Your task to perform on an android device: Open Amazon Image 0: 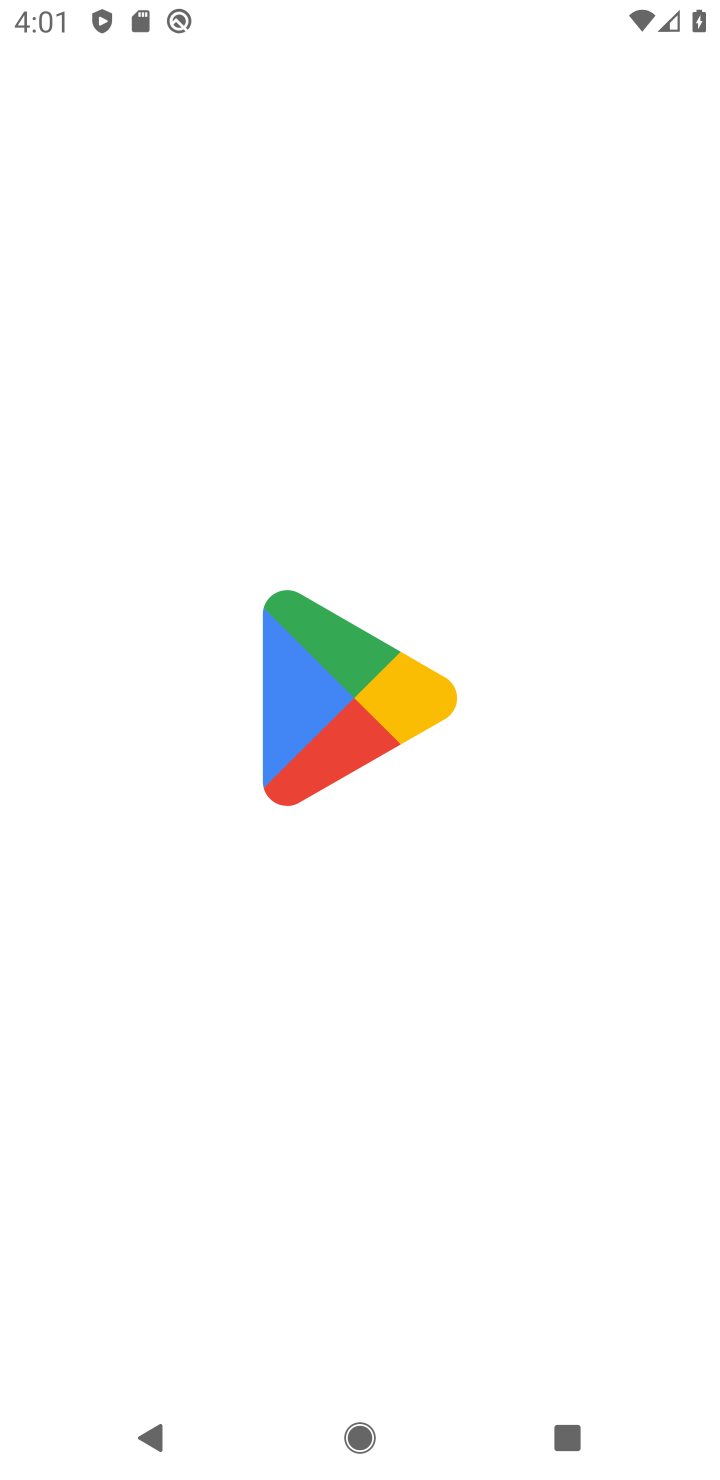
Step 0: press home button
Your task to perform on an android device: Open Amazon Image 1: 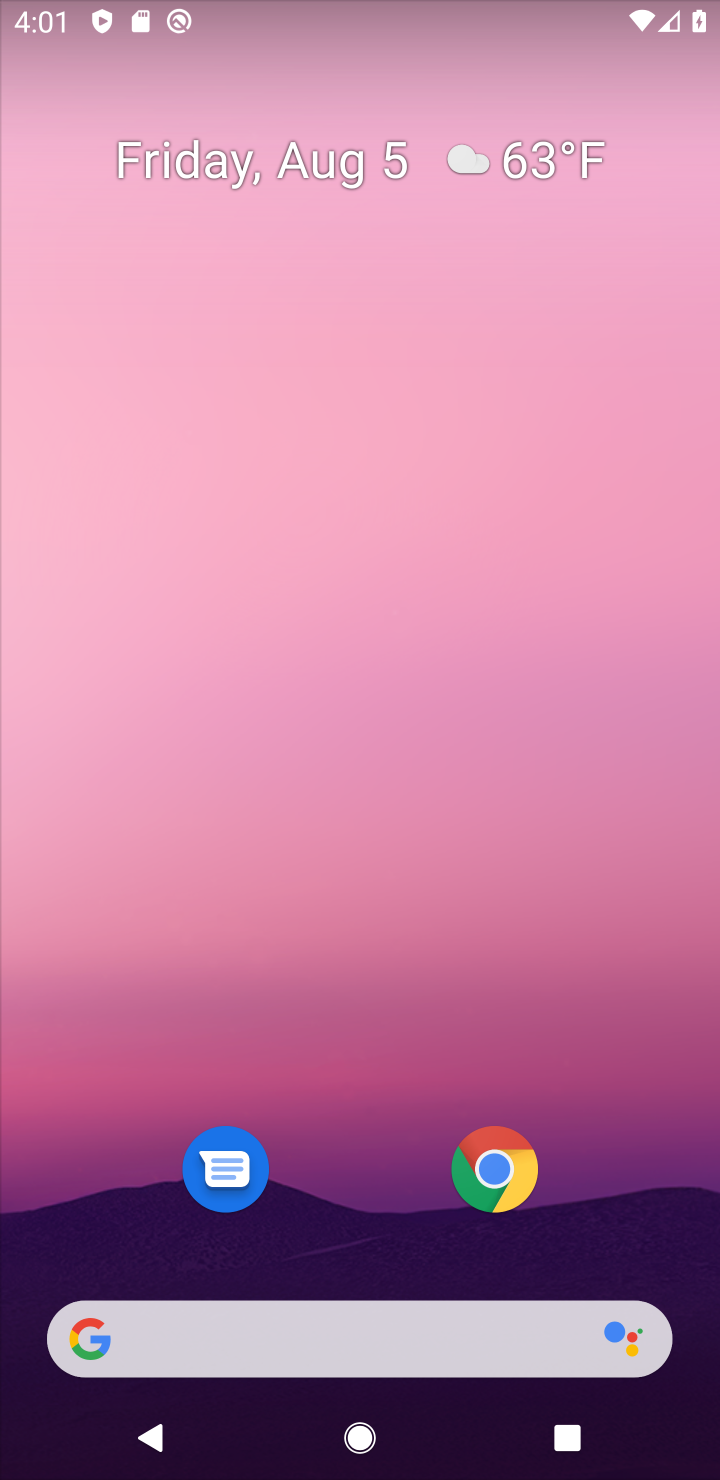
Step 1: drag from (445, 446) to (455, 200)
Your task to perform on an android device: Open Amazon Image 2: 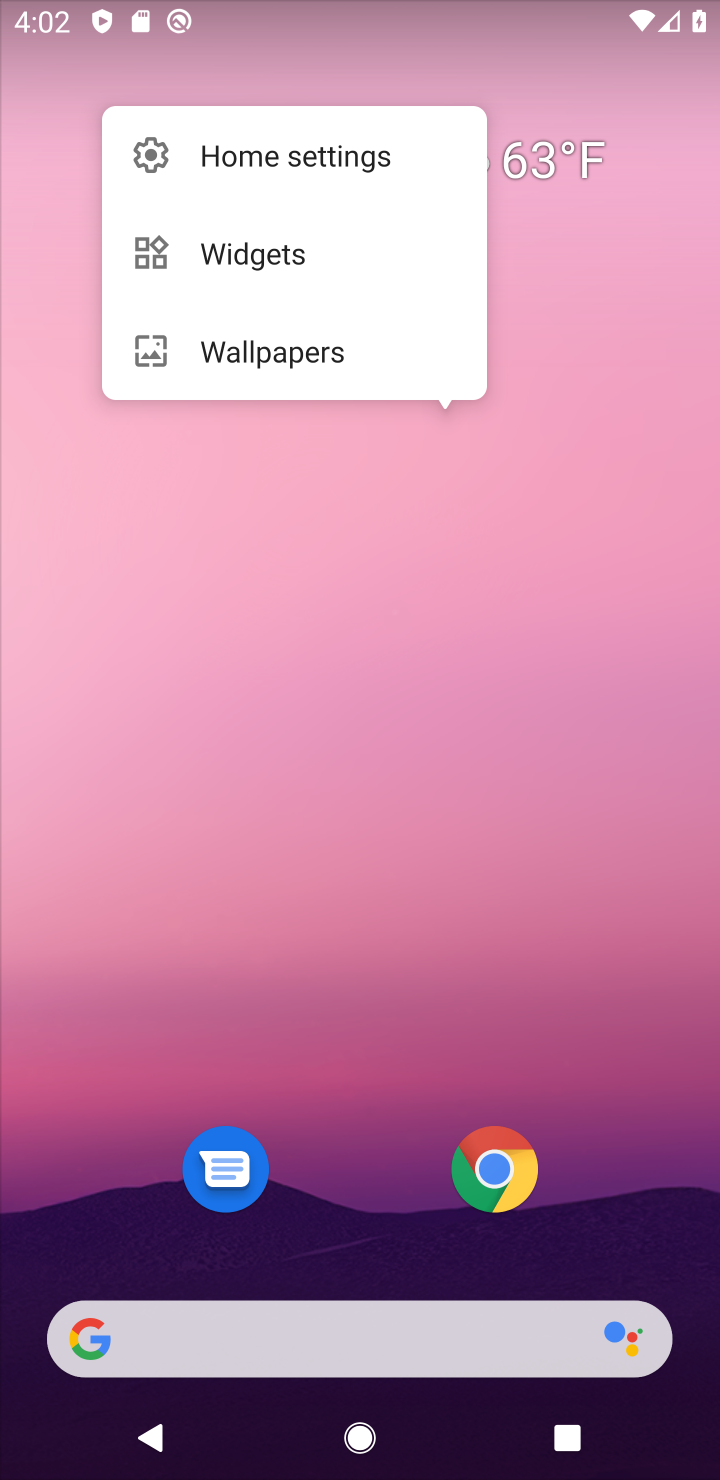
Step 2: drag from (432, 877) to (513, 275)
Your task to perform on an android device: Open Amazon Image 3: 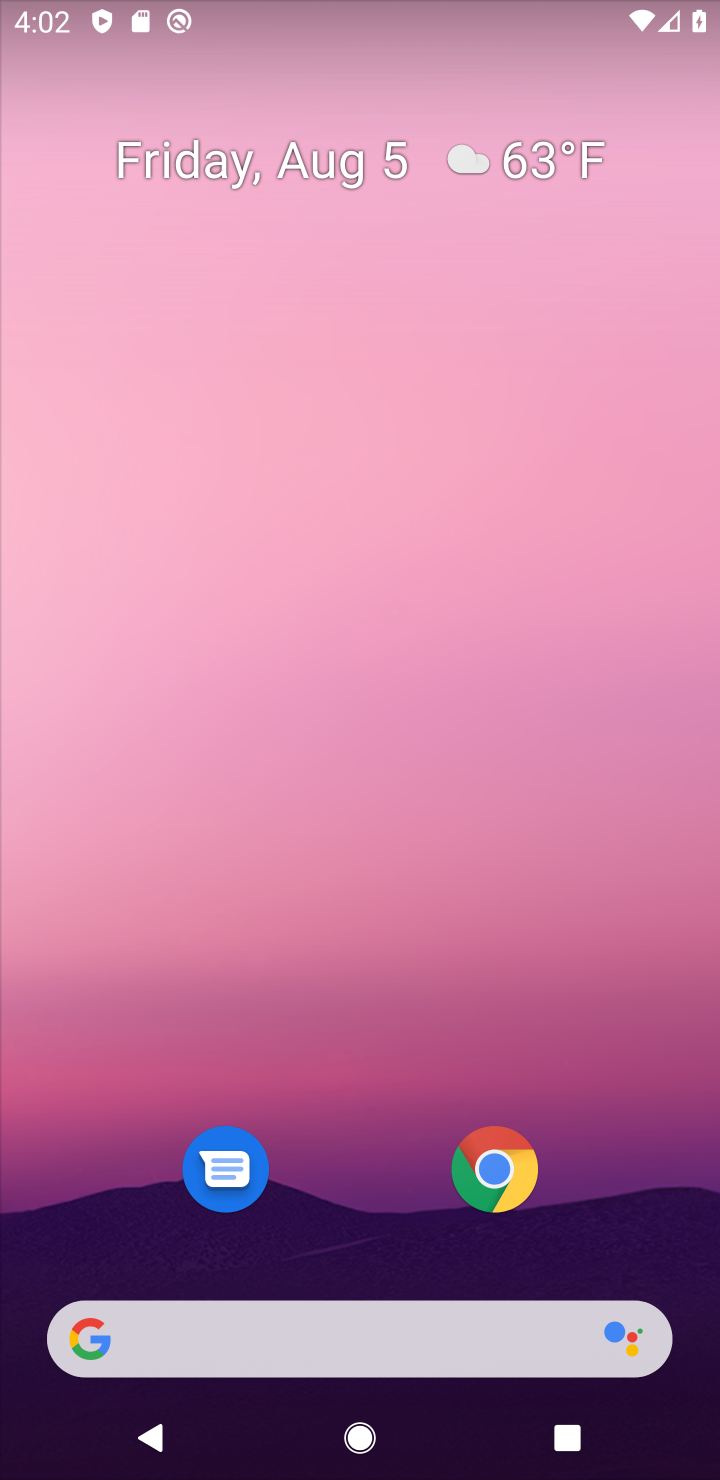
Step 3: drag from (394, 887) to (435, 328)
Your task to perform on an android device: Open Amazon Image 4: 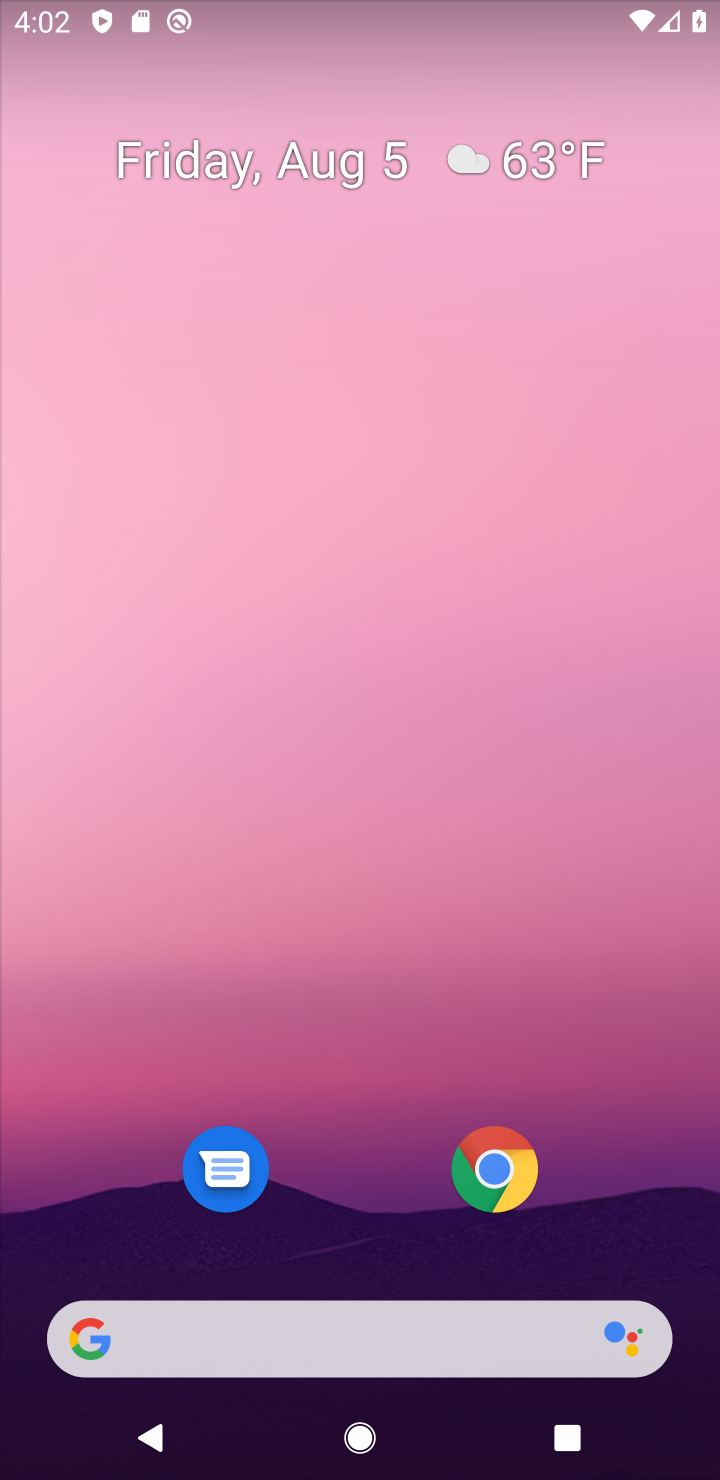
Step 4: drag from (408, 1049) to (386, 371)
Your task to perform on an android device: Open Amazon Image 5: 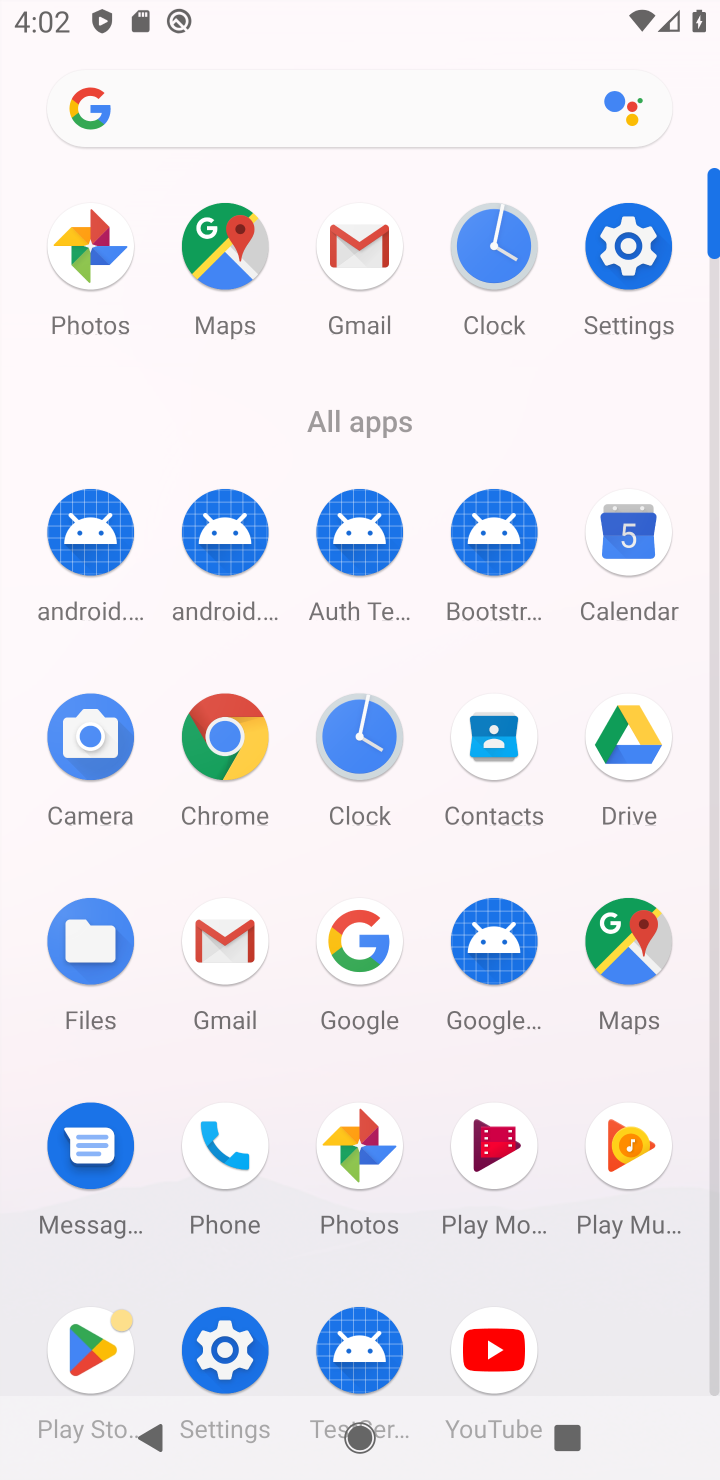
Step 5: click (356, 957)
Your task to perform on an android device: Open Amazon Image 6: 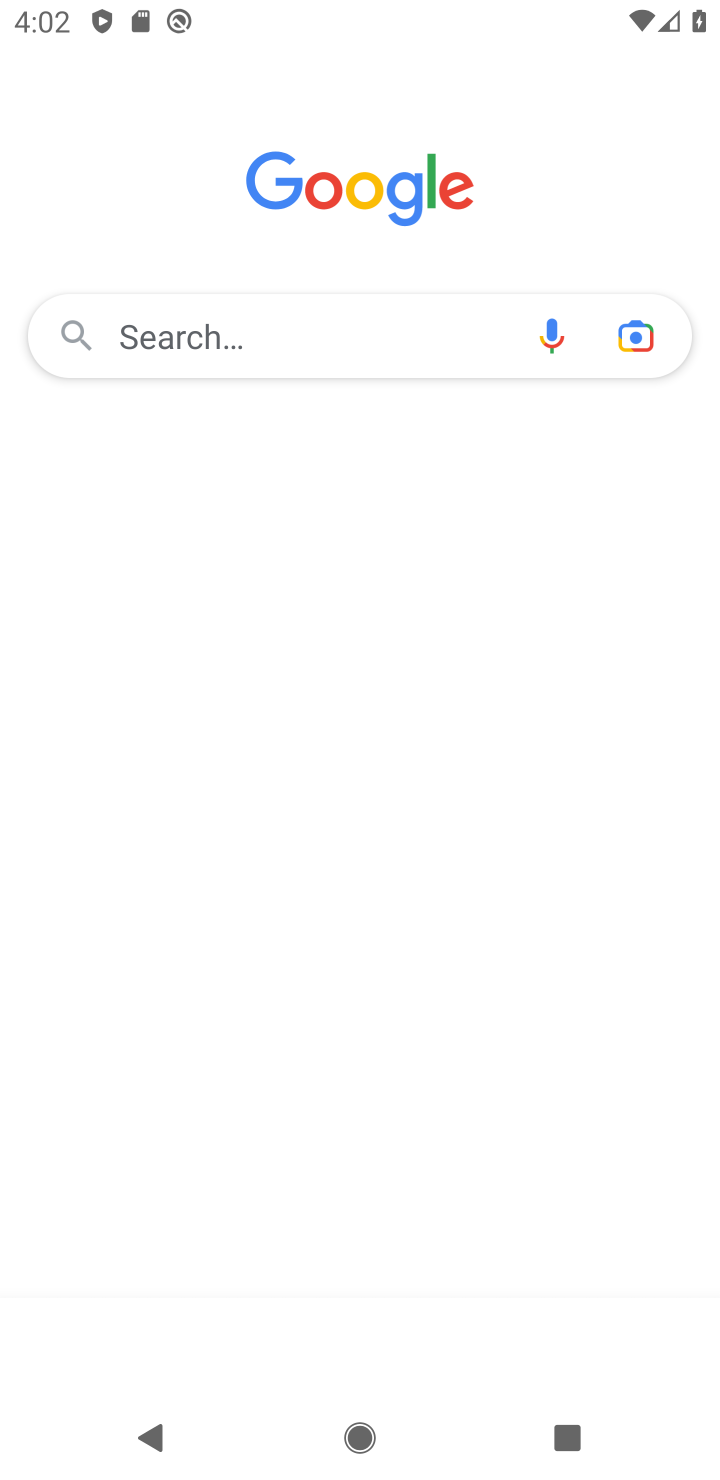
Step 6: click (308, 948)
Your task to perform on an android device: Open Amazon Image 7: 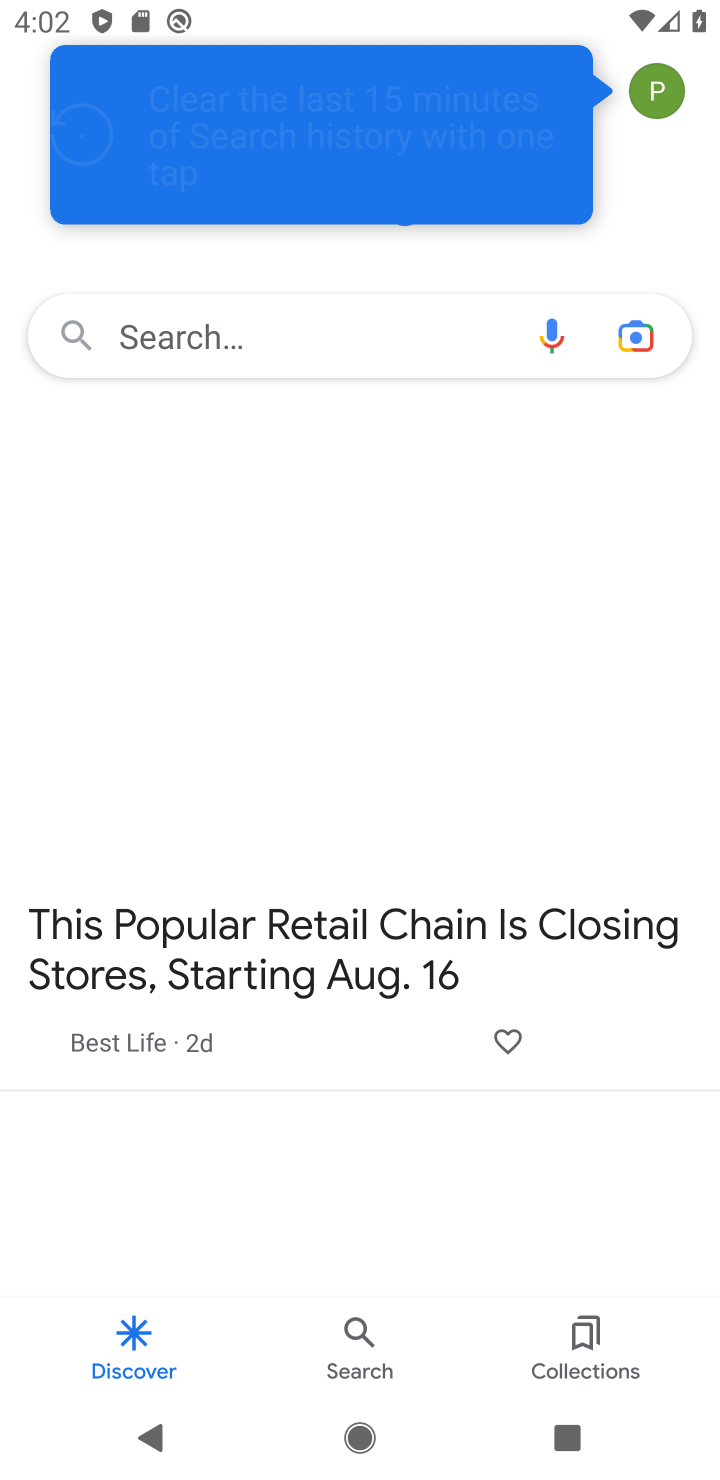
Step 7: click (288, 340)
Your task to perform on an android device: Open Amazon Image 8: 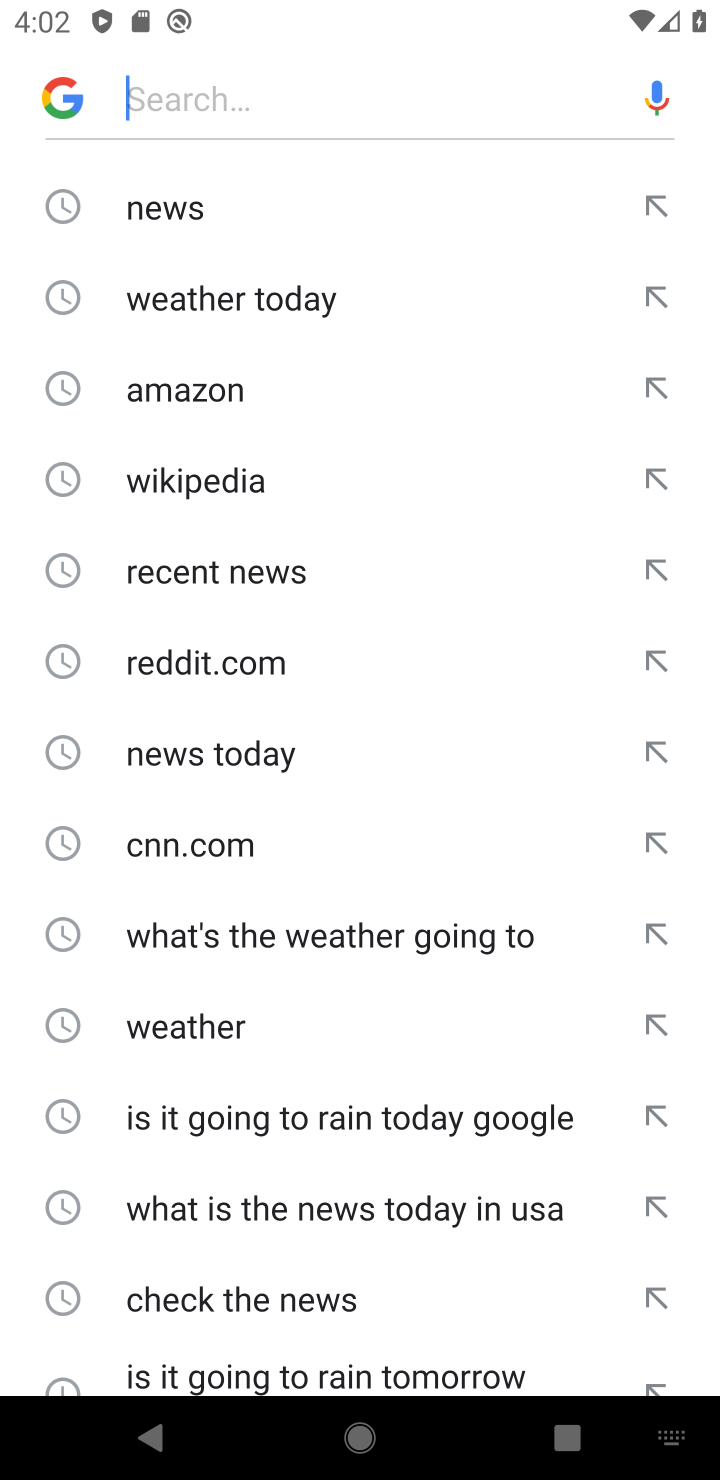
Step 8: click (225, 388)
Your task to perform on an android device: Open Amazon Image 9: 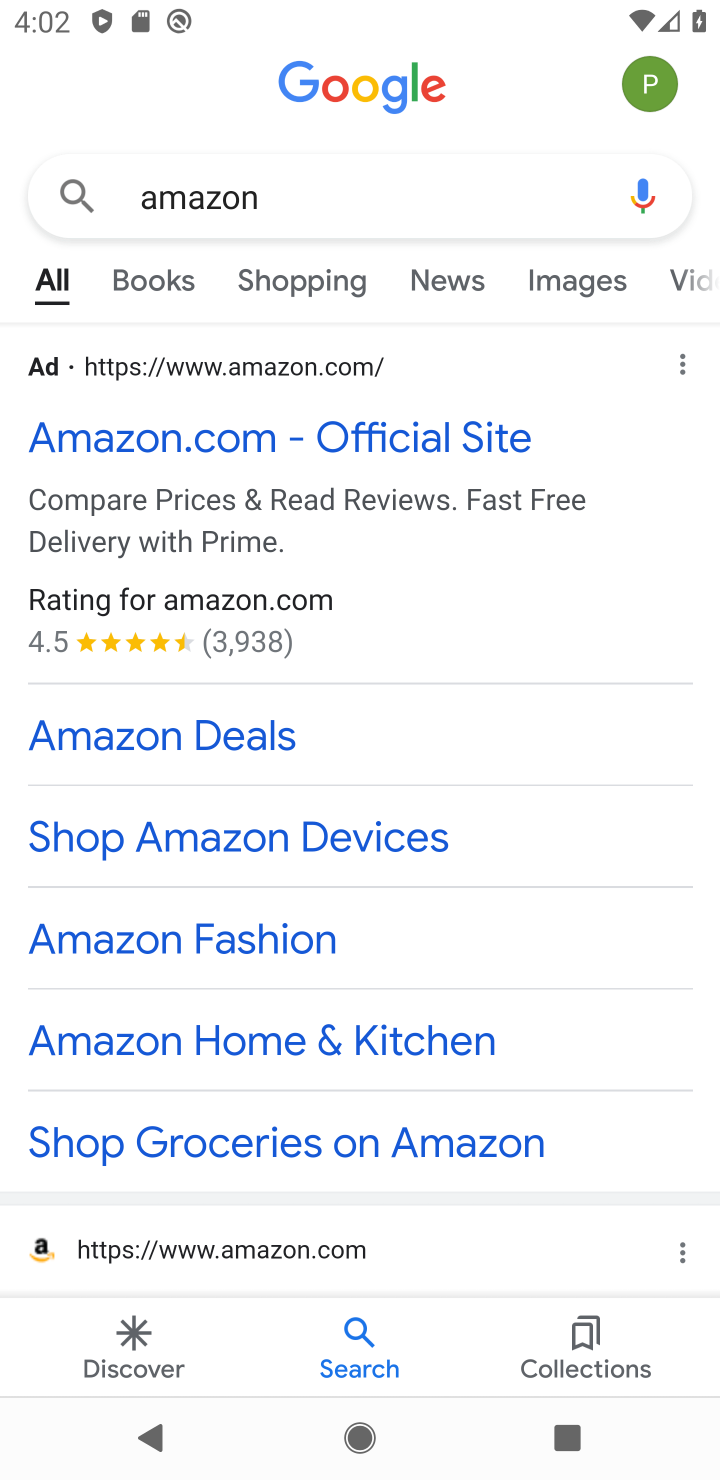
Step 9: click (176, 442)
Your task to perform on an android device: Open Amazon Image 10: 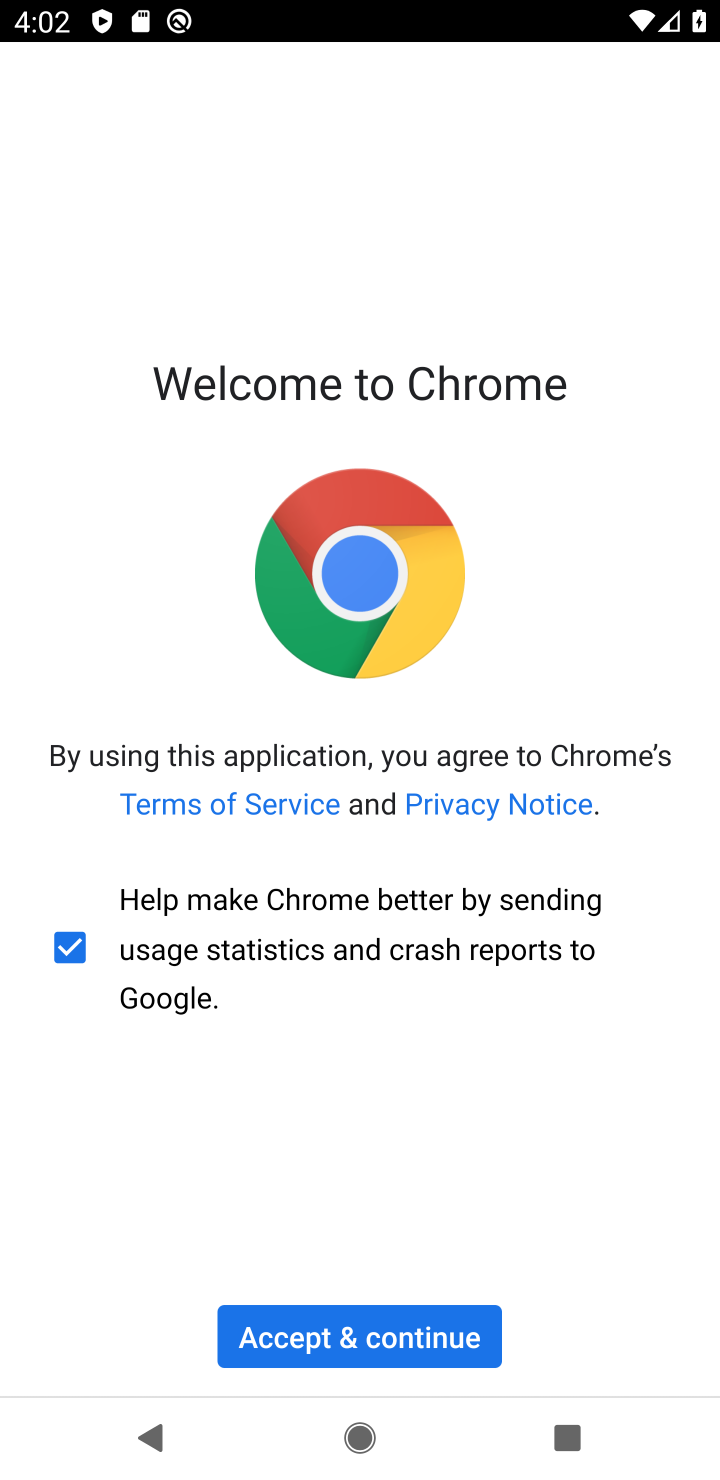
Step 10: click (419, 1346)
Your task to perform on an android device: Open Amazon Image 11: 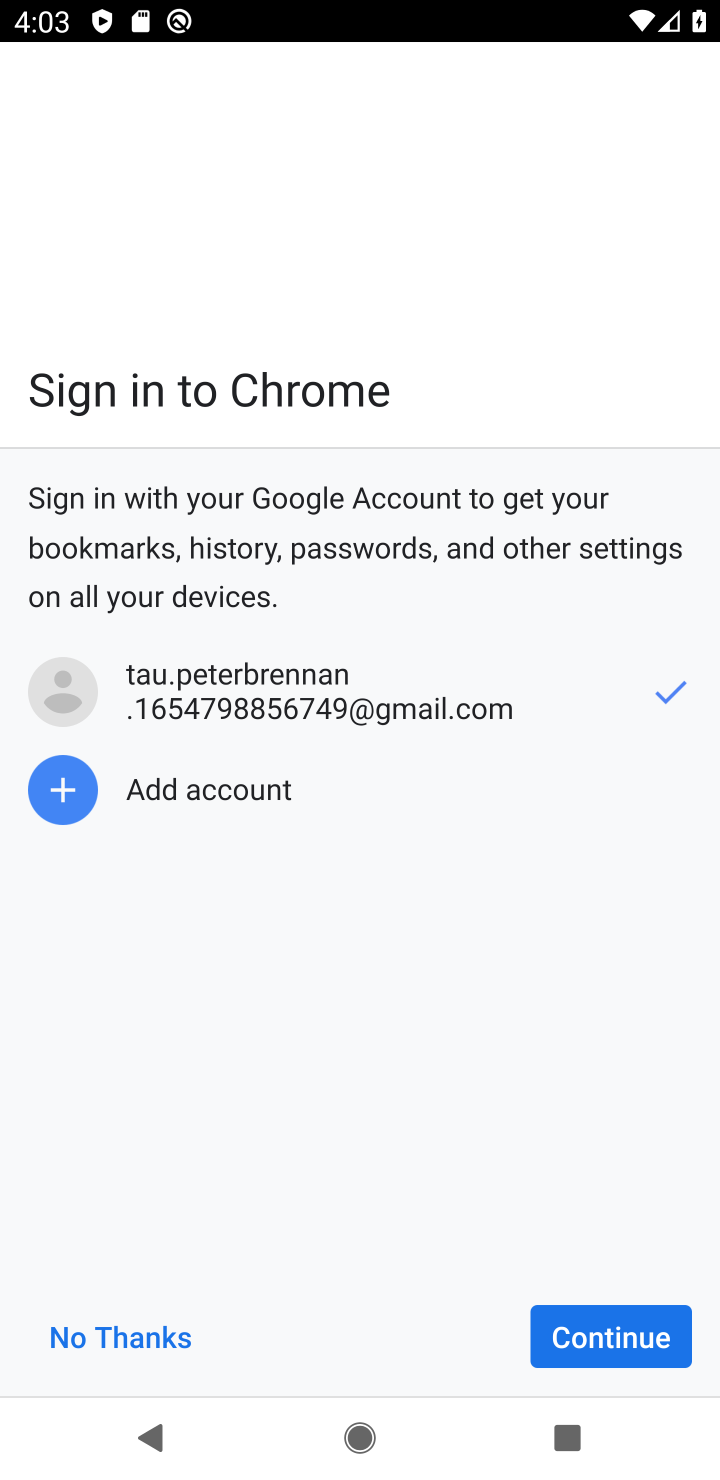
Step 11: click (558, 1334)
Your task to perform on an android device: Open Amazon Image 12: 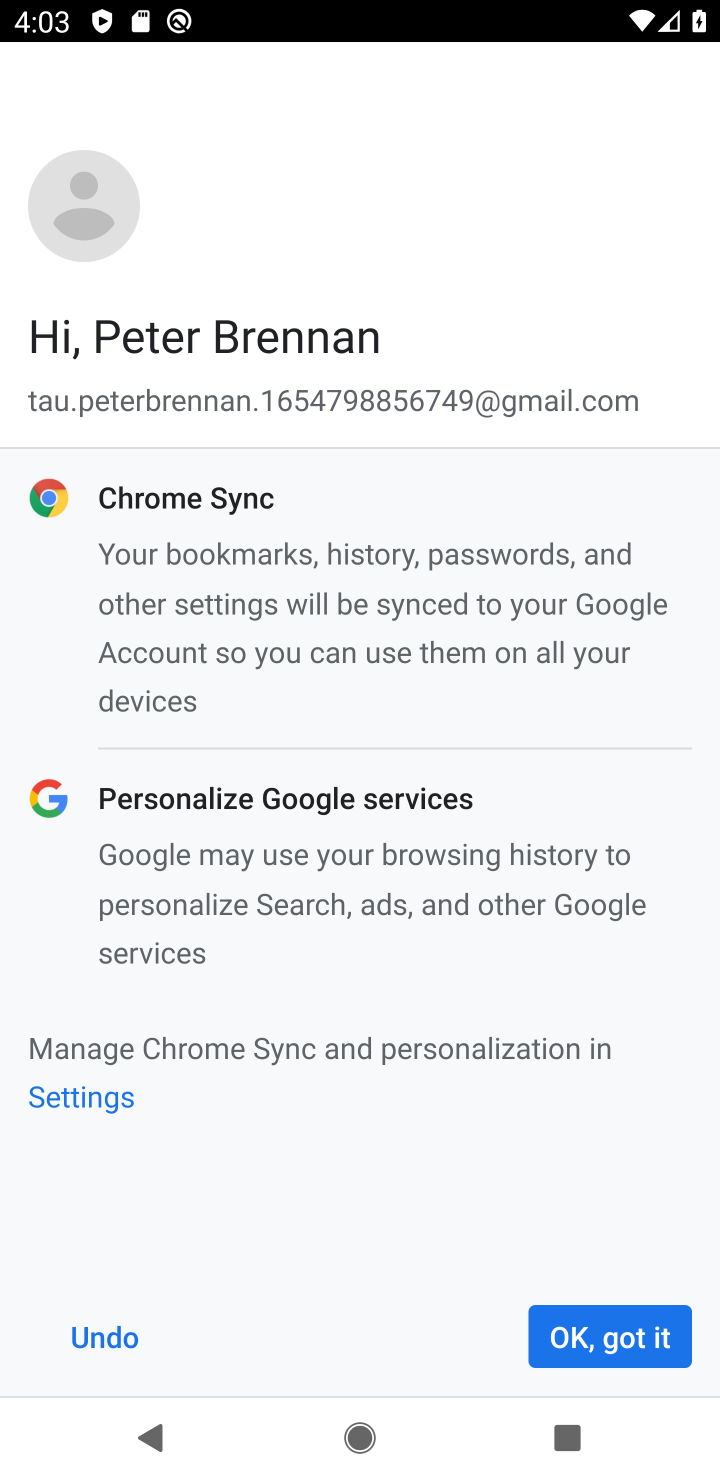
Step 12: click (558, 1337)
Your task to perform on an android device: Open Amazon Image 13: 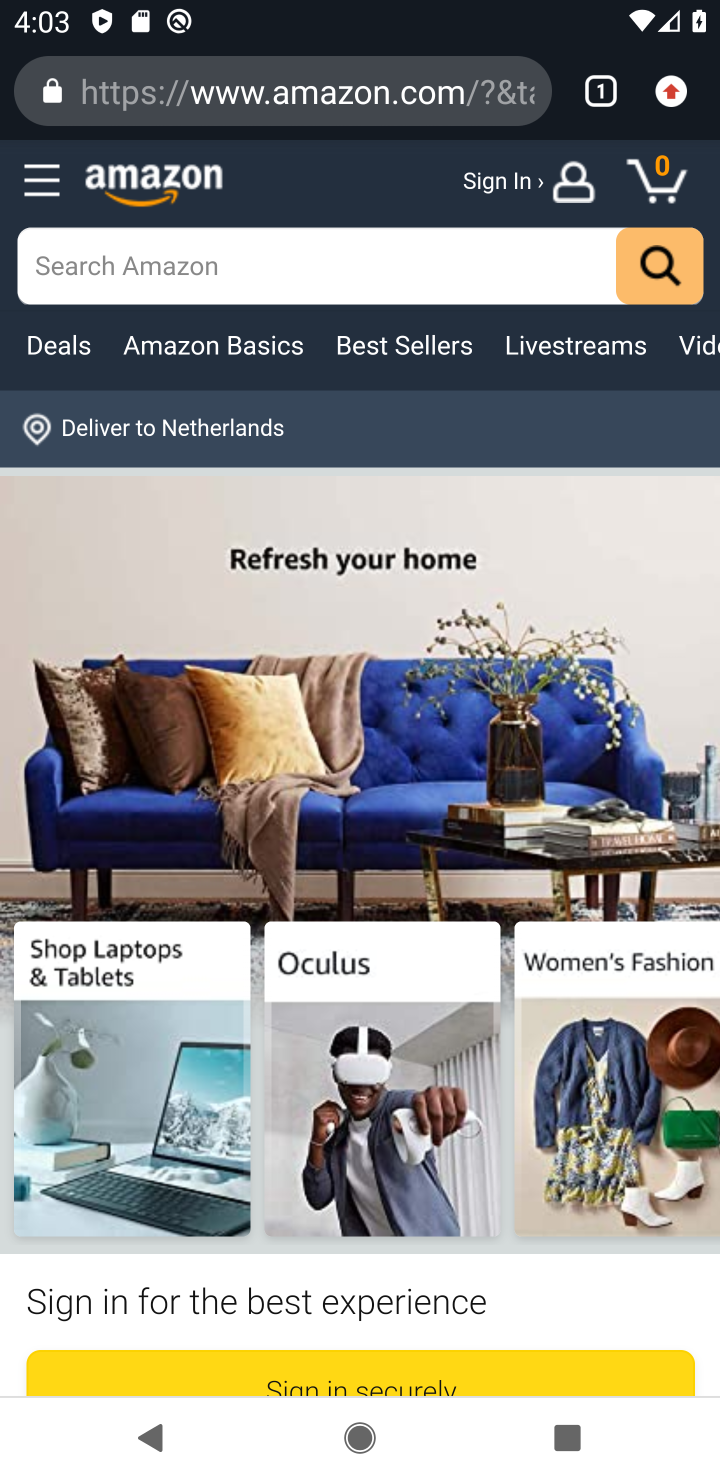
Step 13: task complete